Your task to perform on an android device: Is it going to rain tomorrow? Image 0: 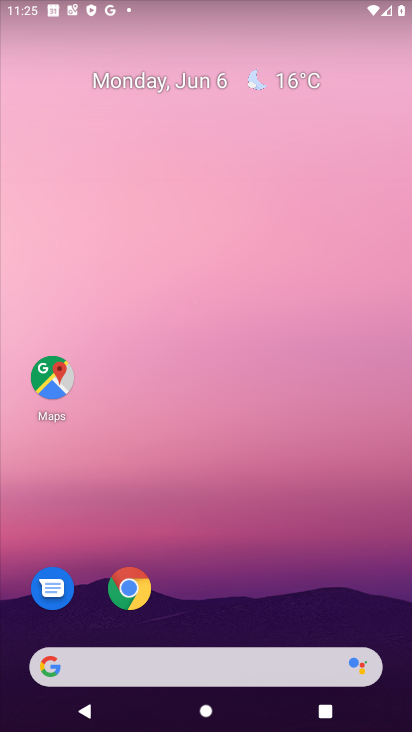
Step 0: click (181, 660)
Your task to perform on an android device: Is it going to rain tomorrow? Image 1: 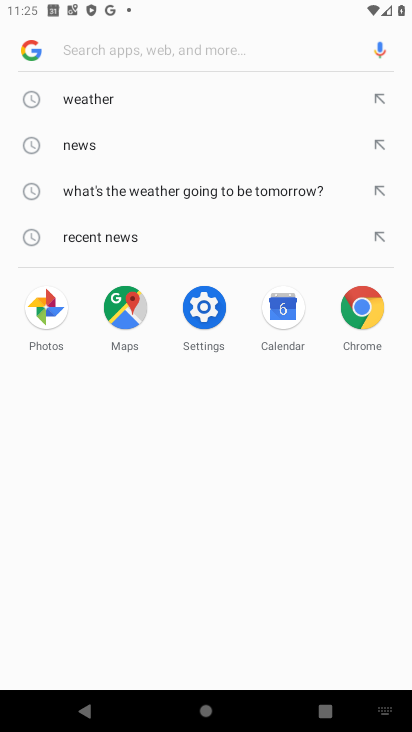
Step 1: click (101, 88)
Your task to perform on an android device: Is it going to rain tomorrow? Image 2: 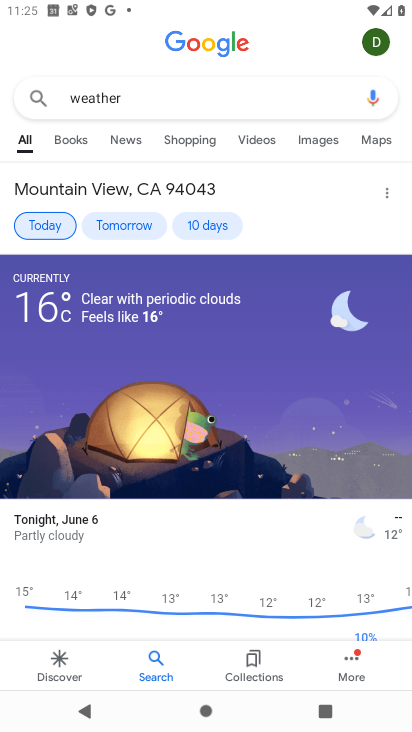
Step 2: drag from (181, 536) to (179, 432)
Your task to perform on an android device: Is it going to rain tomorrow? Image 3: 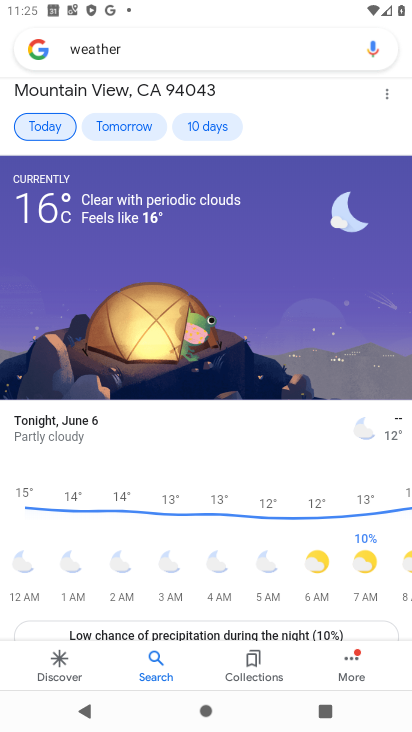
Step 3: click (126, 125)
Your task to perform on an android device: Is it going to rain tomorrow? Image 4: 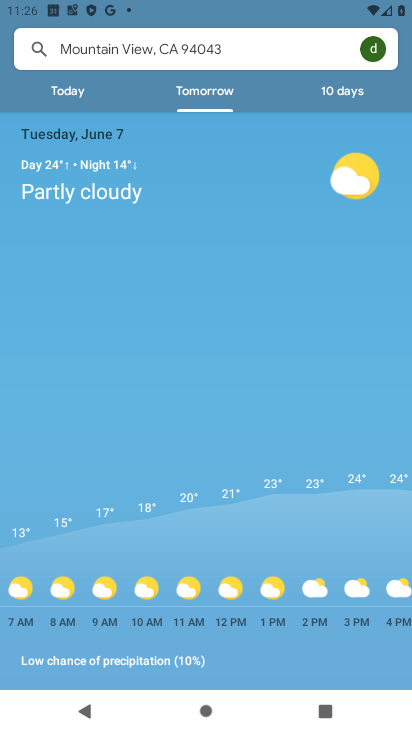
Step 4: task complete